Your task to perform on an android device: open a new tab in the chrome app Image 0: 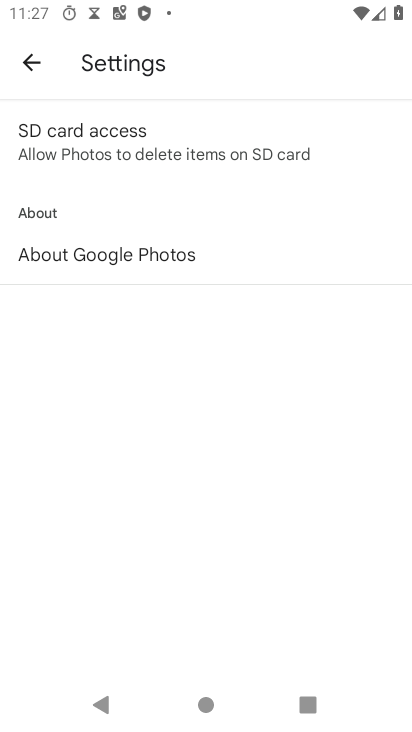
Step 0: press home button
Your task to perform on an android device: open a new tab in the chrome app Image 1: 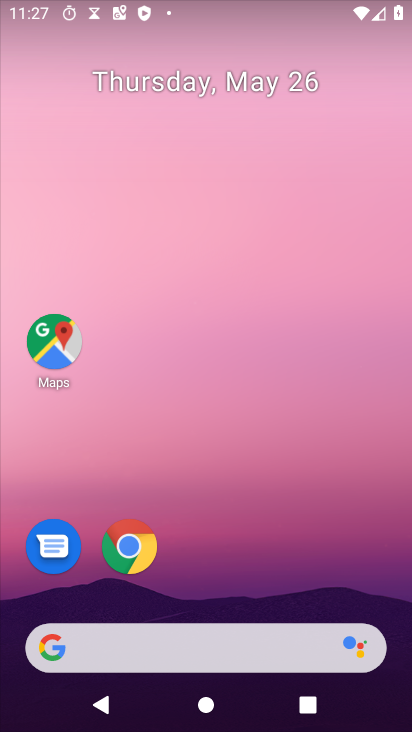
Step 1: drag from (377, 569) to (363, 8)
Your task to perform on an android device: open a new tab in the chrome app Image 2: 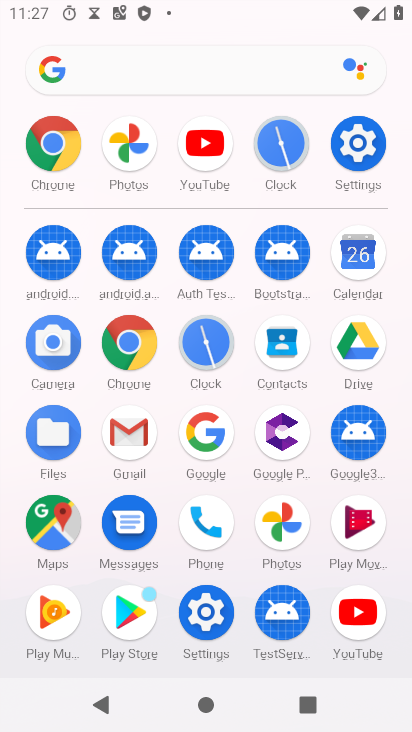
Step 2: click (49, 159)
Your task to perform on an android device: open a new tab in the chrome app Image 3: 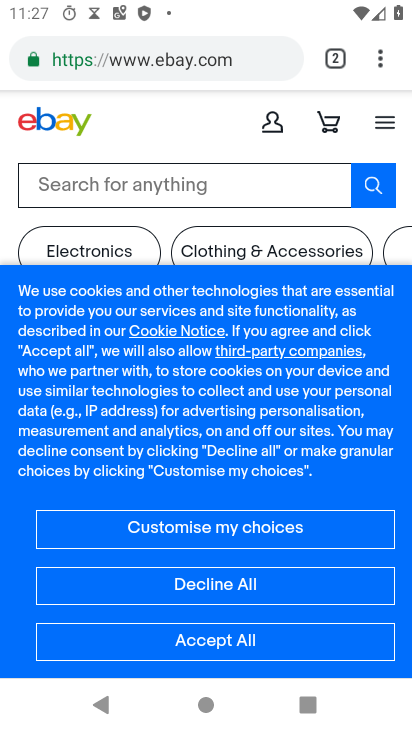
Step 3: click (344, 50)
Your task to perform on an android device: open a new tab in the chrome app Image 4: 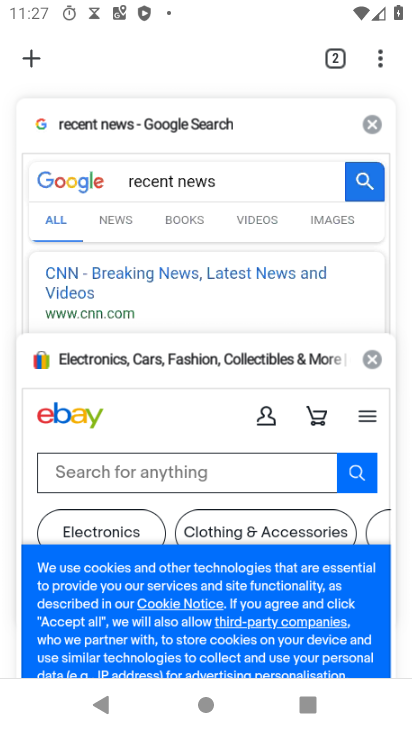
Step 4: click (43, 62)
Your task to perform on an android device: open a new tab in the chrome app Image 5: 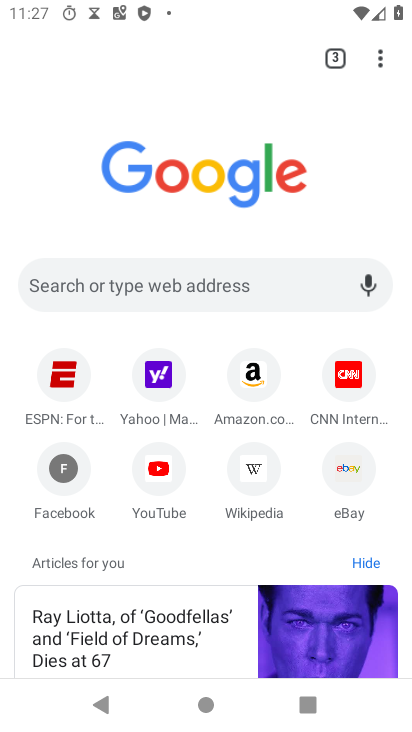
Step 5: task complete